Your task to perform on an android device: Go to internet settings Image 0: 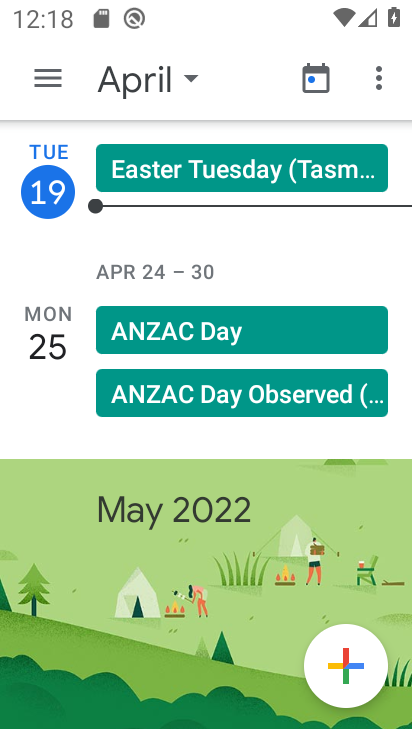
Step 0: press home button
Your task to perform on an android device: Go to internet settings Image 1: 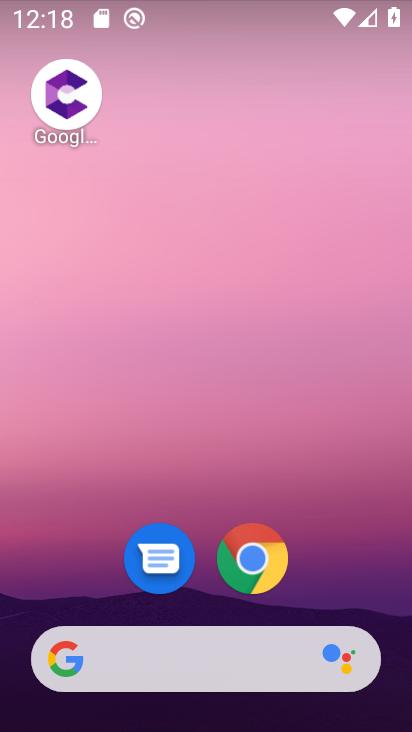
Step 1: drag from (324, 546) to (230, 95)
Your task to perform on an android device: Go to internet settings Image 2: 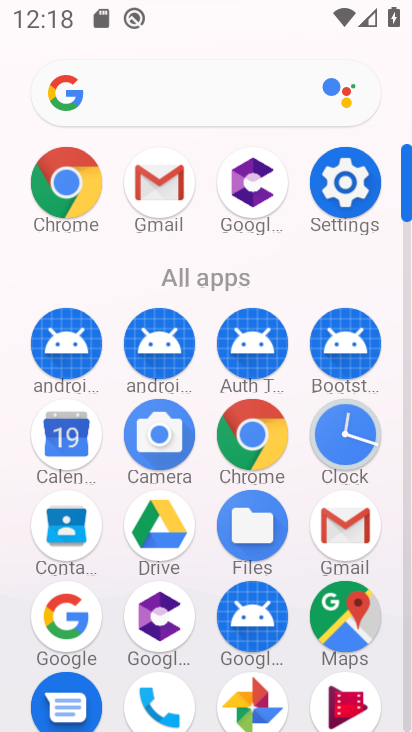
Step 2: click (332, 180)
Your task to perform on an android device: Go to internet settings Image 3: 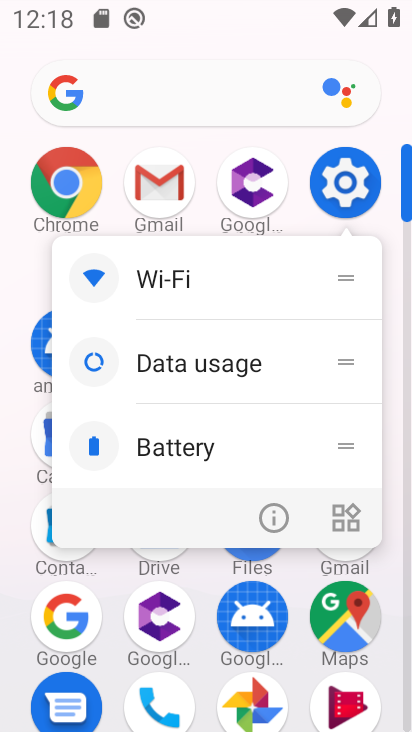
Step 3: click (334, 181)
Your task to perform on an android device: Go to internet settings Image 4: 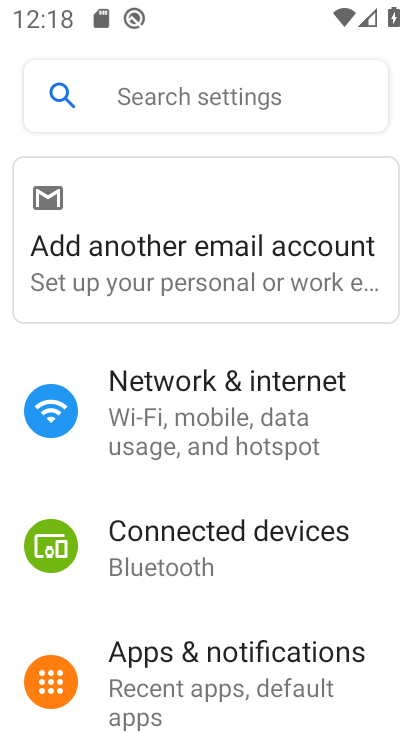
Step 4: click (182, 434)
Your task to perform on an android device: Go to internet settings Image 5: 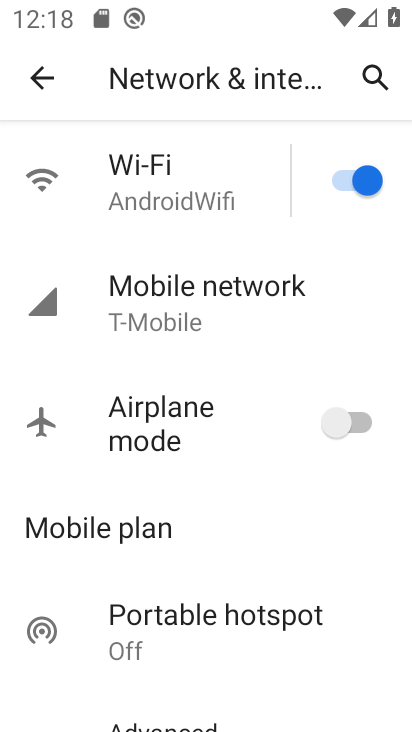
Step 5: task complete